Your task to perform on an android device: Search for the best rated tool bag on Lowe's. Image 0: 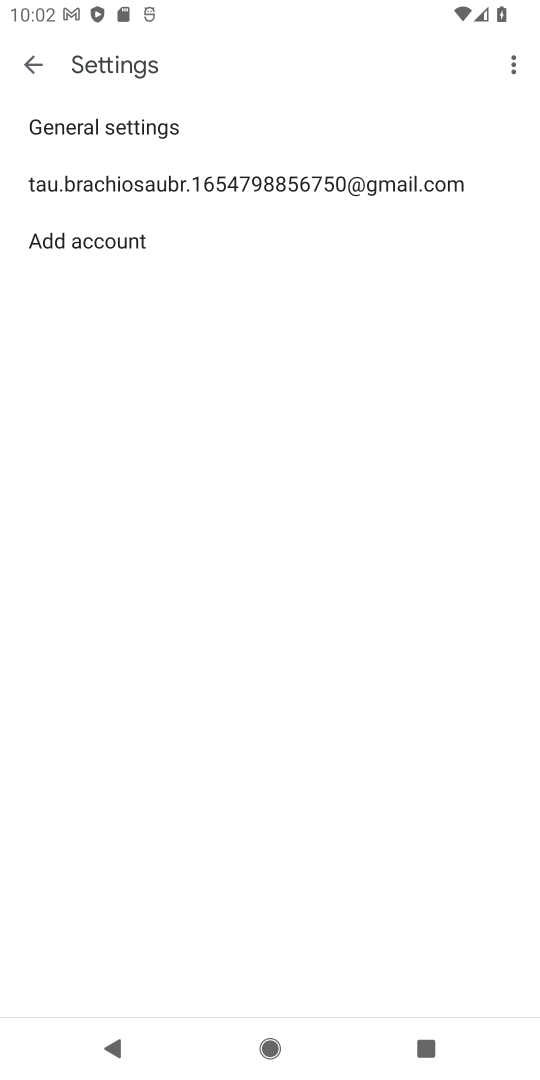
Step 0: press home button
Your task to perform on an android device: Search for the best rated tool bag on Lowe's. Image 1: 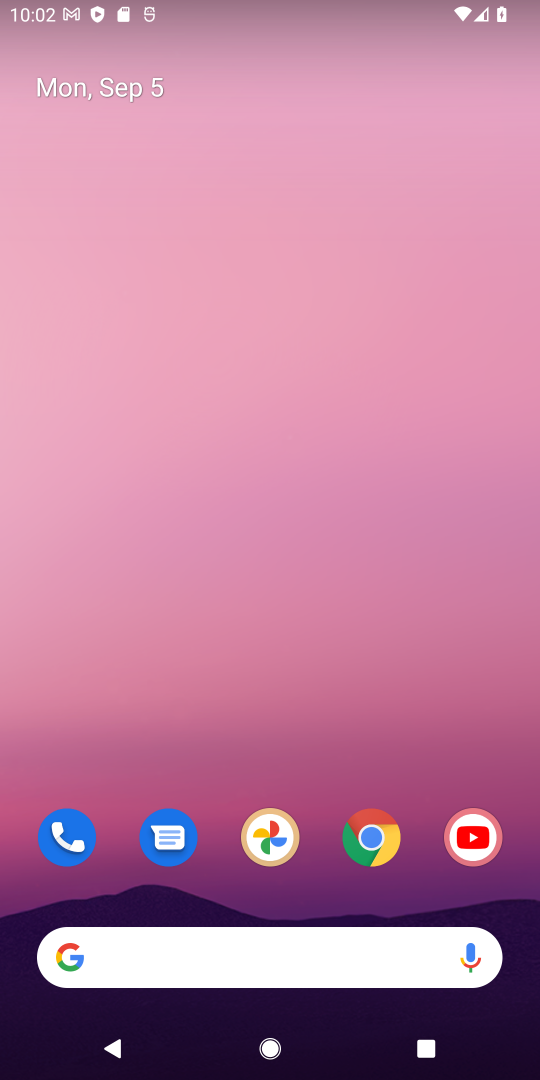
Step 1: drag from (310, 799) to (386, 133)
Your task to perform on an android device: Search for the best rated tool bag on Lowe's. Image 2: 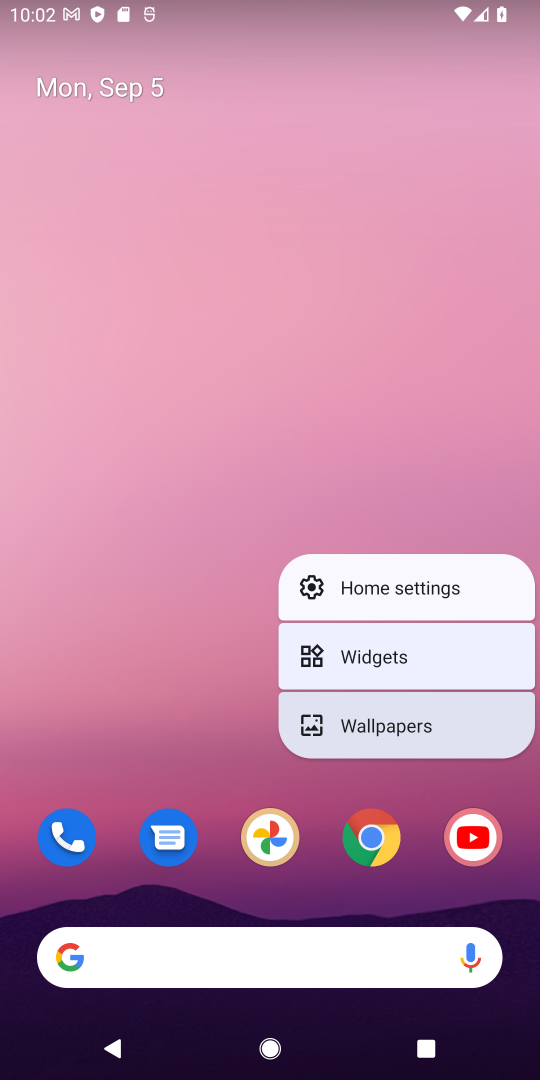
Step 2: click (201, 671)
Your task to perform on an android device: Search for the best rated tool bag on Lowe's. Image 3: 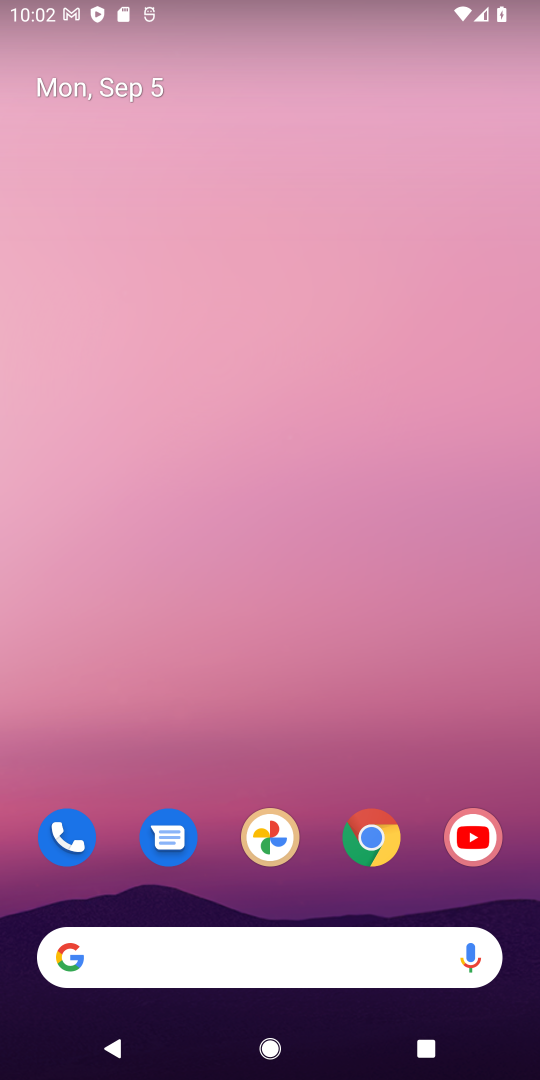
Step 3: drag from (315, 866) to (362, 81)
Your task to perform on an android device: Search for the best rated tool bag on Lowe's. Image 4: 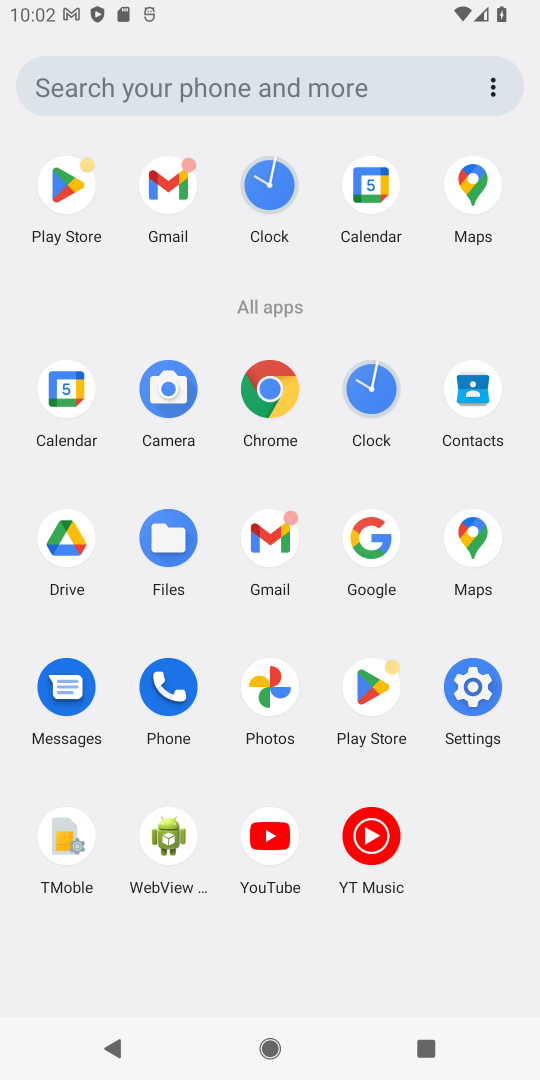
Step 4: click (266, 379)
Your task to perform on an android device: Search for the best rated tool bag on Lowe's. Image 5: 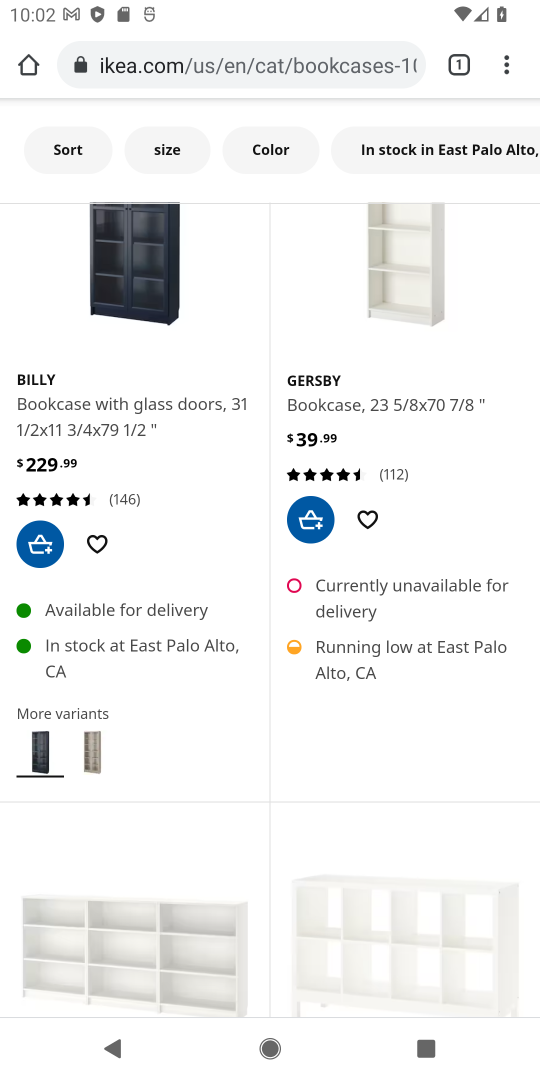
Step 5: click (459, 57)
Your task to perform on an android device: Search for the best rated tool bag on Lowe's. Image 6: 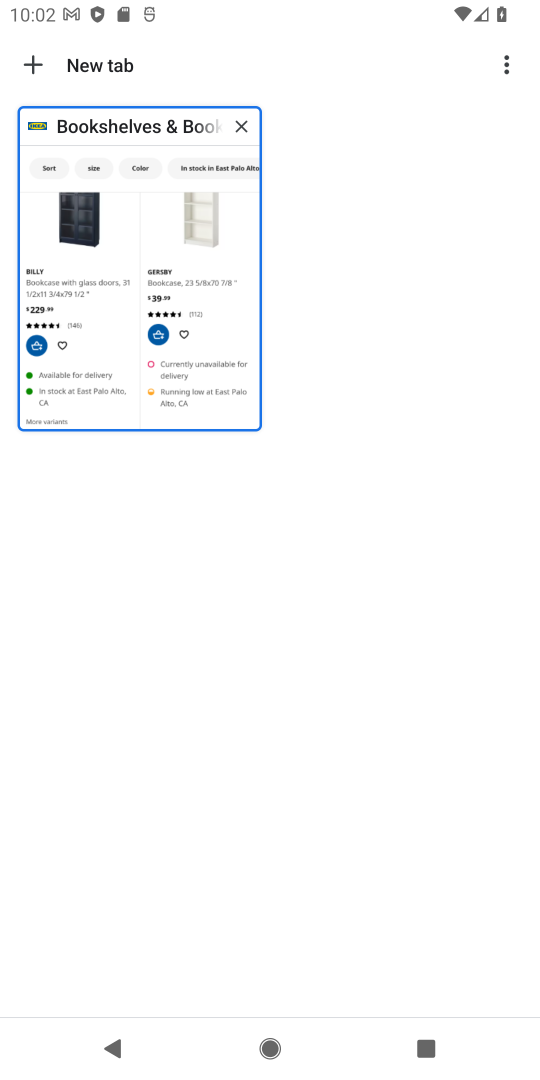
Step 6: click (32, 63)
Your task to perform on an android device: Search for the best rated tool bag on Lowe's. Image 7: 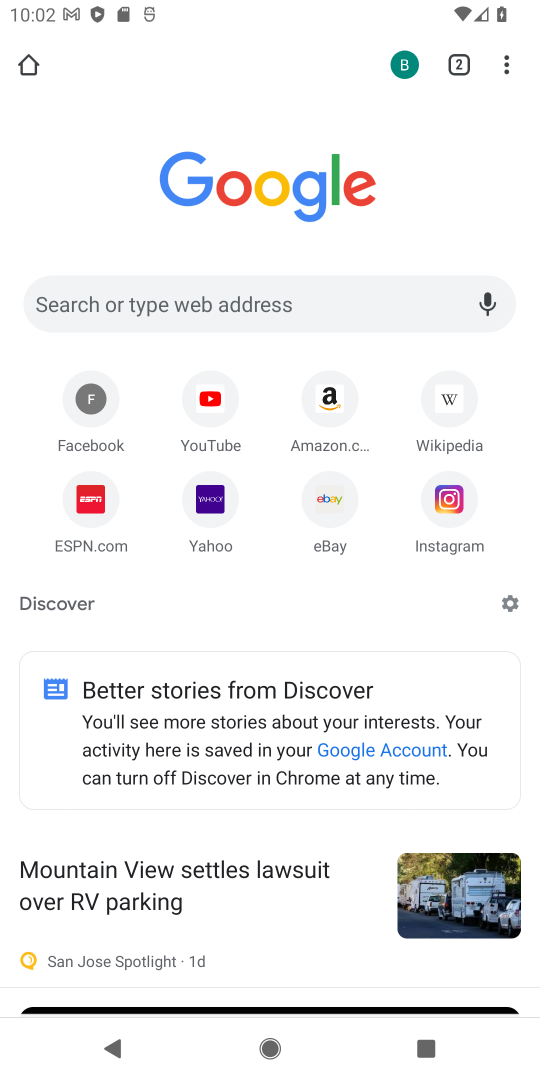
Step 7: click (129, 289)
Your task to perform on an android device: Search for the best rated tool bag on Lowe's. Image 8: 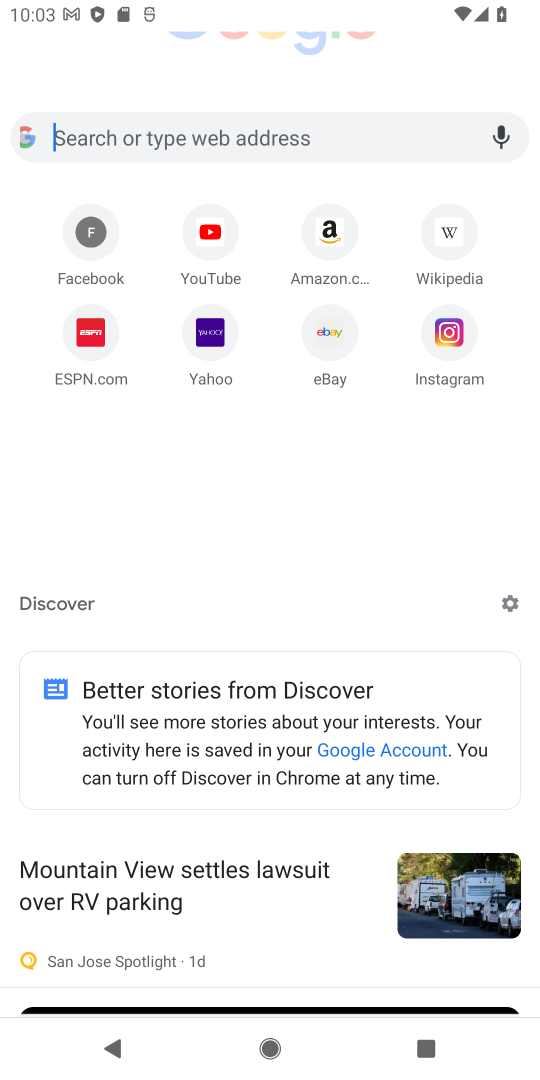
Step 8: click (129, 289)
Your task to perform on an android device: Search for the best rated tool bag on Lowe's. Image 9: 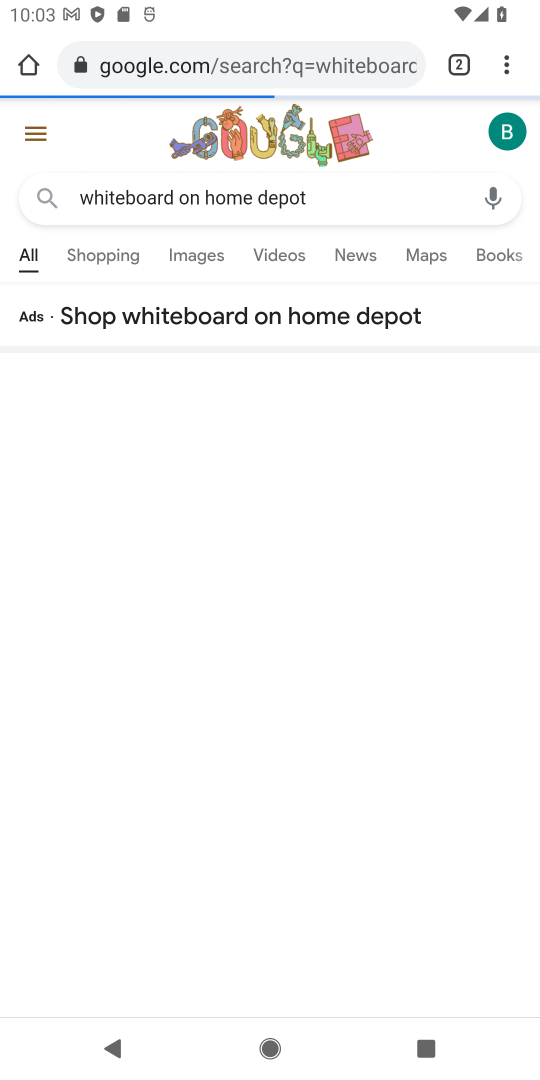
Step 9: press back button
Your task to perform on an android device: Search for the best rated tool bag on Lowe's. Image 10: 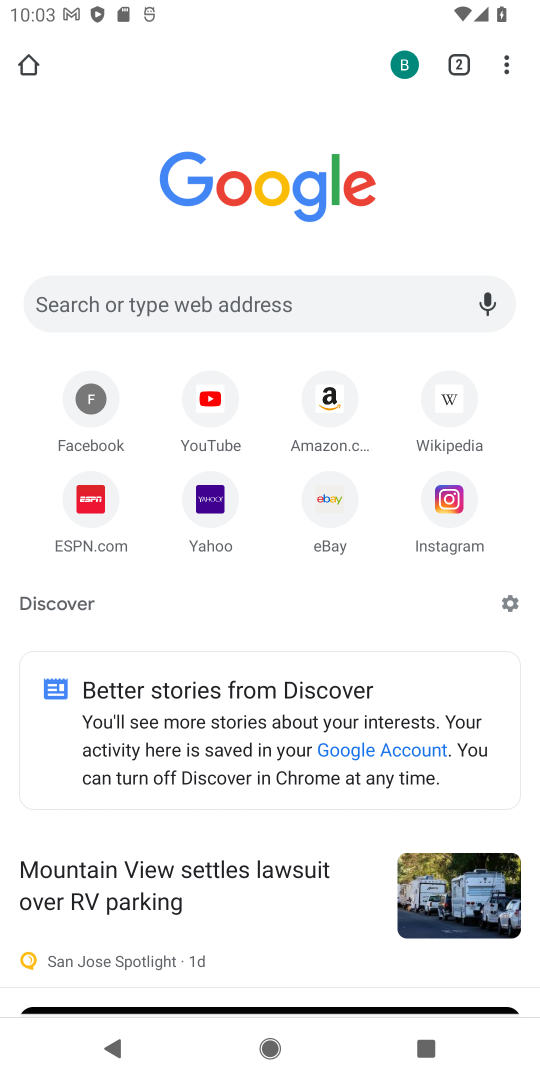
Step 10: click (98, 301)
Your task to perform on an android device: Search for the best rated tool bag on Lowe's. Image 11: 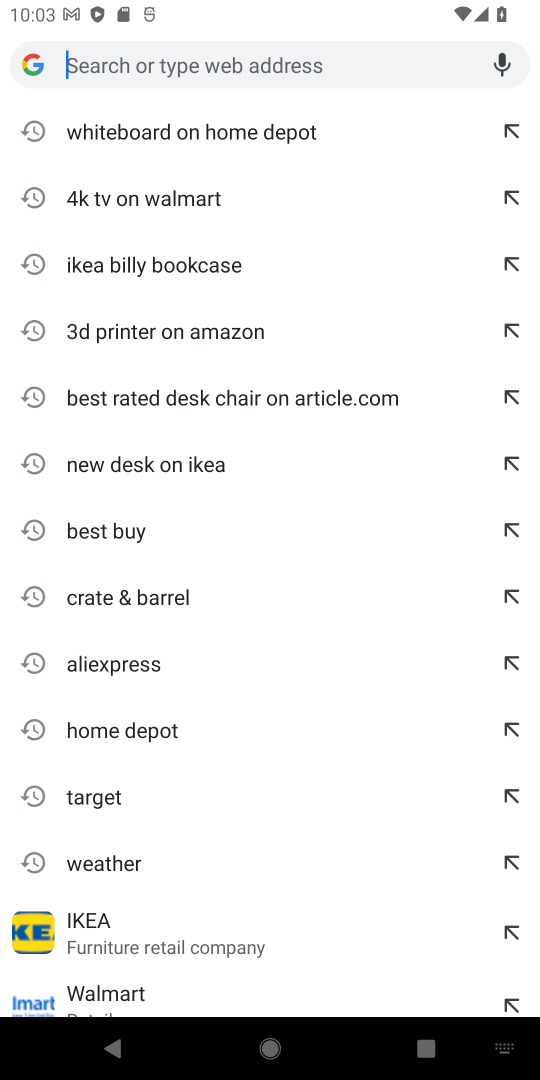
Step 11: type "best rated tool bag on Lowe's"
Your task to perform on an android device: Search for the best rated tool bag on Lowe's. Image 12: 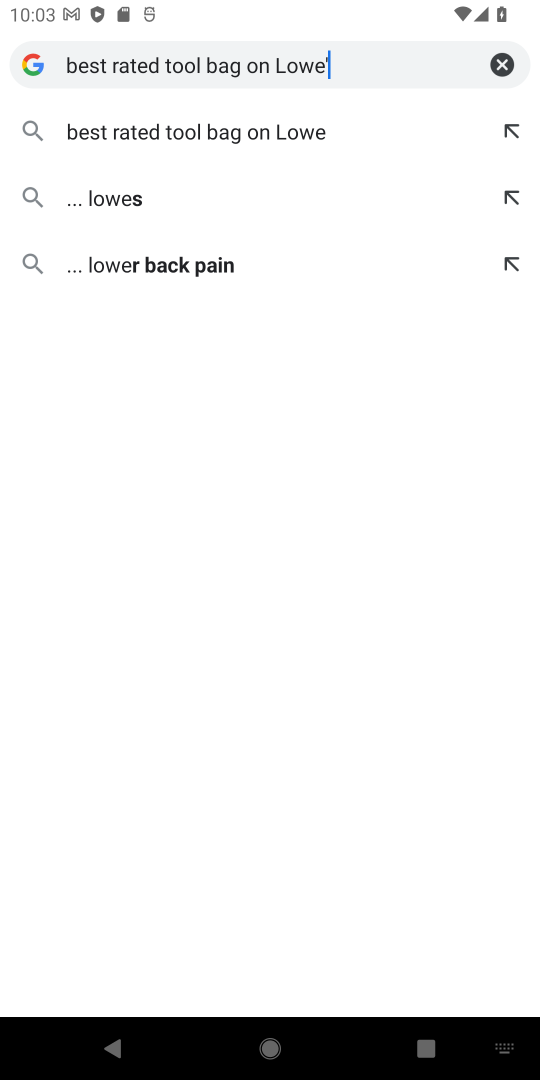
Step 12: type ""
Your task to perform on an android device: Search for the best rated tool bag on Lowe's. Image 13: 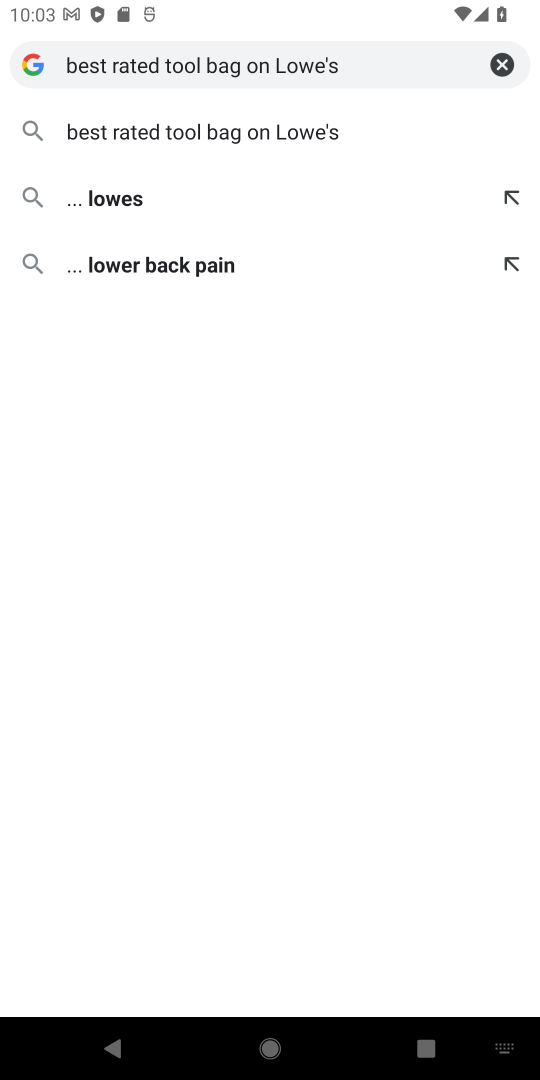
Step 13: click (119, 133)
Your task to perform on an android device: Search for the best rated tool bag on Lowe's. Image 14: 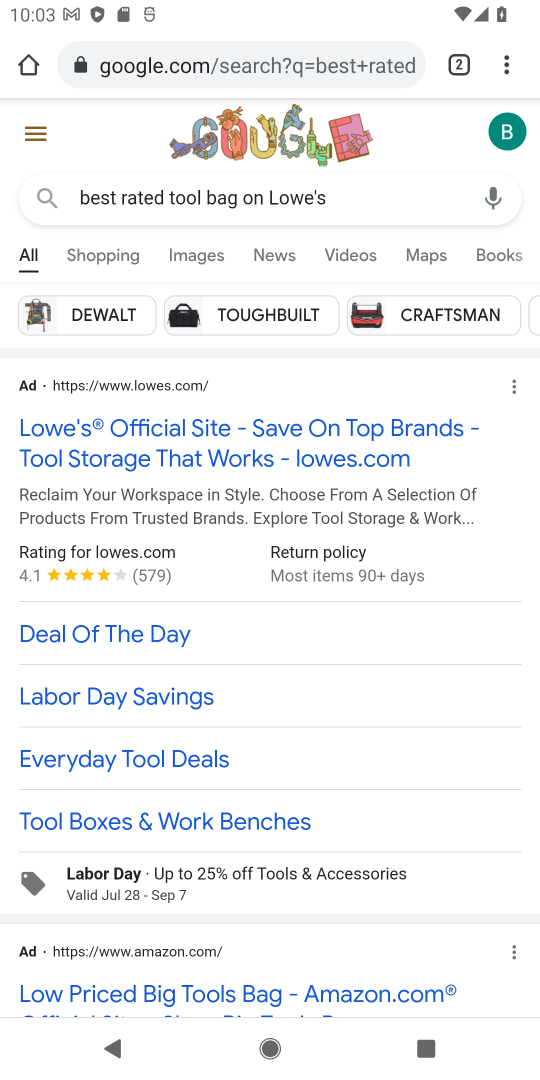
Step 14: drag from (279, 926) to (324, 439)
Your task to perform on an android device: Search for the best rated tool bag on Lowe's. Image 15: 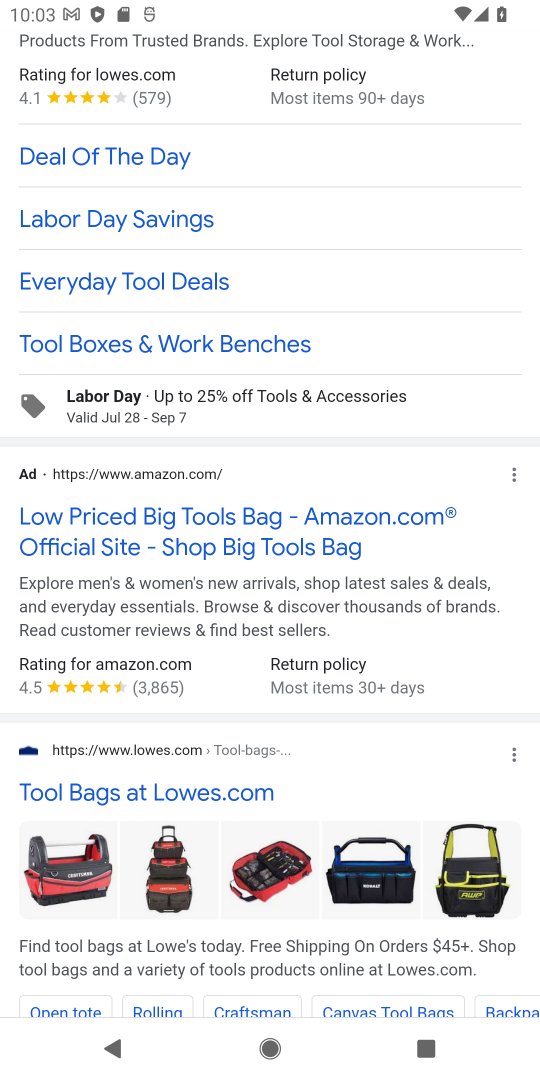
Step 15: click (198, 793)
Your task to perform on an android device: Search for the best rated tool bag on Lowe's. Image 16: 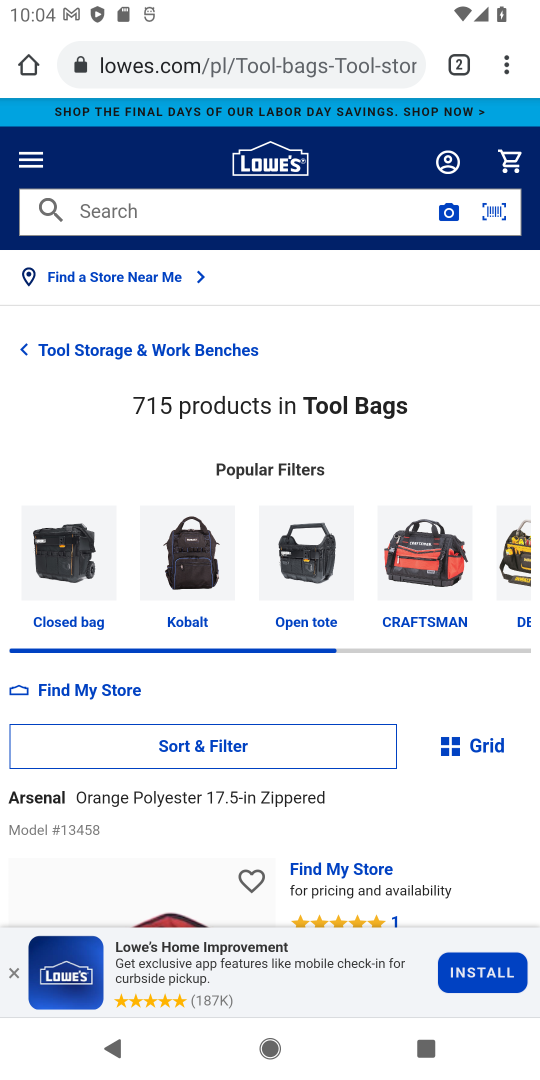
Step 16: task complete